Your task to perform on an android device: open device folders in google photos Image 0: 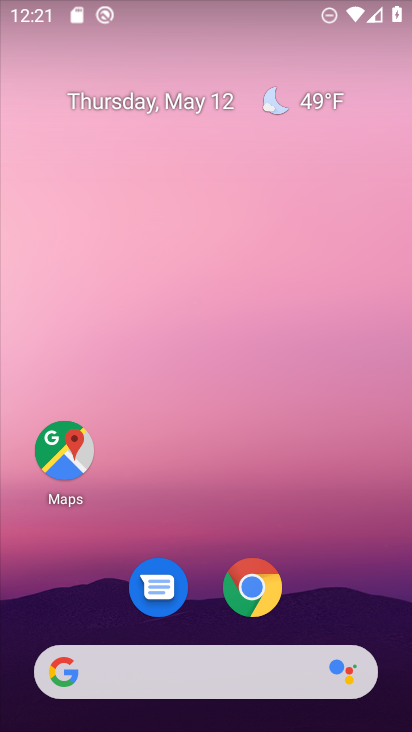
Step 0: drag from (356, 584) to (337, 234)
Your task to perform on an android device: open device folders in google photos Image 1: 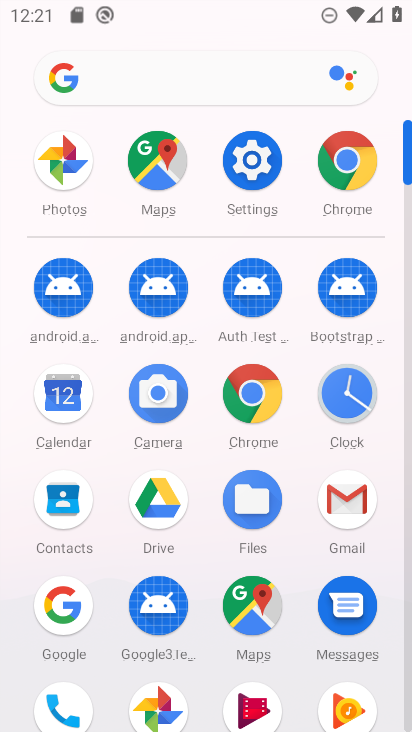
Step 1: click (152, 702)
Your task to perform on an android device: open device folders in google photos Image 2: 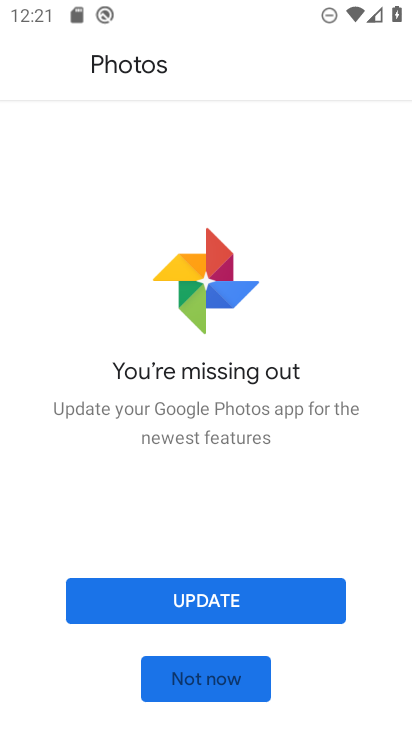
Step 2: click (213, 670)
Your task to perform on an android device: open device folders in google photos Image 3: 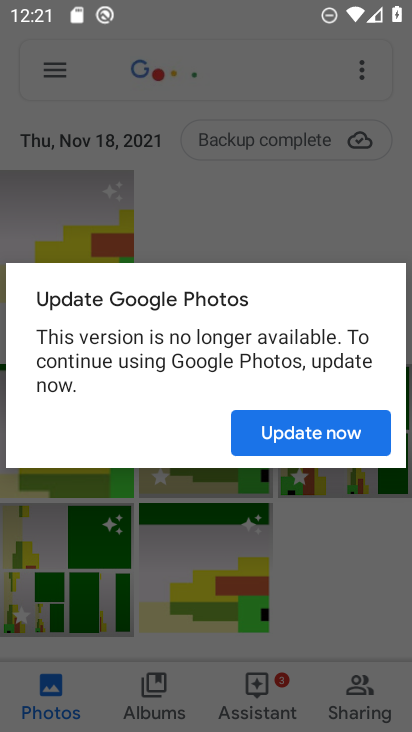
Step 3: click (297, 439)
Your task to perform on an android device: open device folders in google photos Image 4: 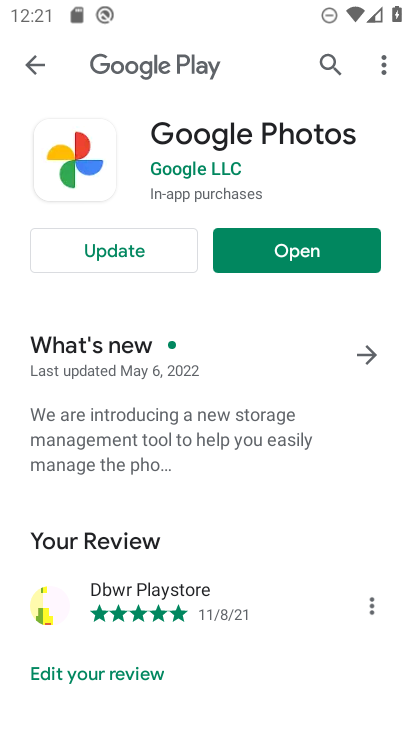
Step 4: task complete